Your task to perform on an android device: Open the stopwatch Image 0: 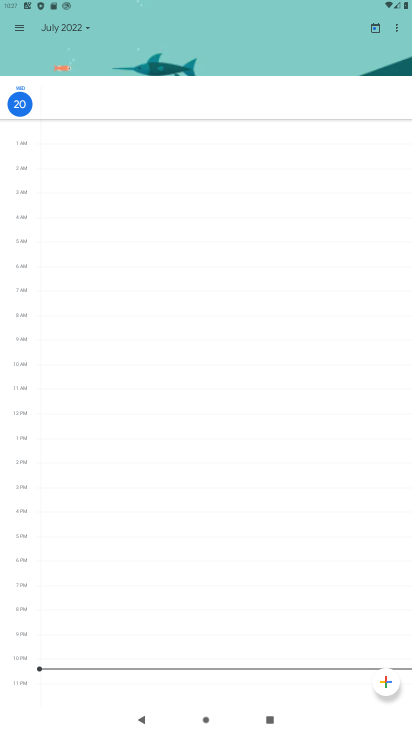
Step 0: task complete